Your task to perform on an android device: turn pop-ups off in chrome Image 0: 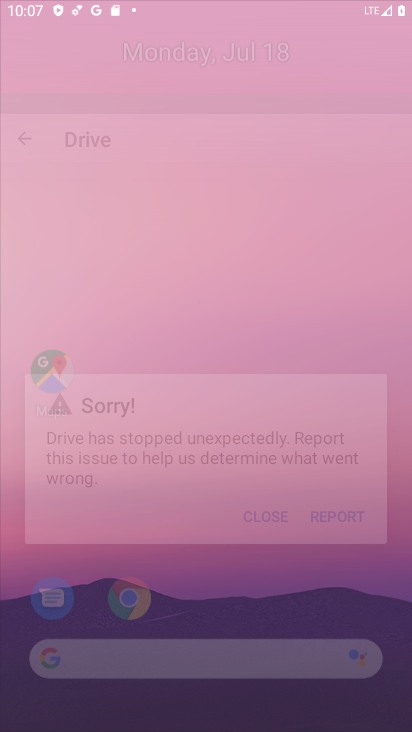
Step 0: drag from (200, 153) to (202, 101)
Your task to perform on an android device: turn pop-ups off in chrome Image 1: 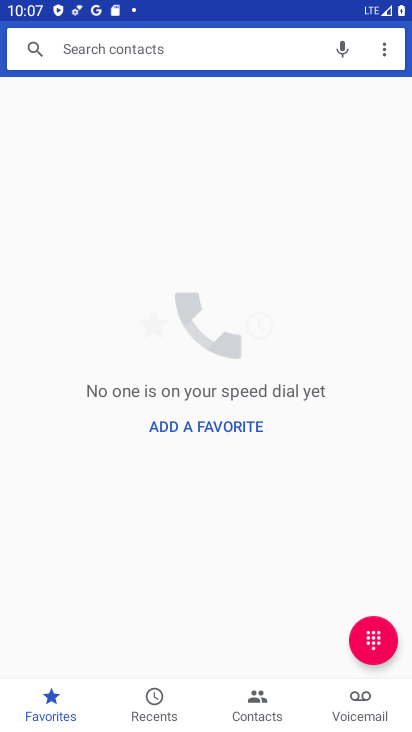
Step 1: press home button
Your task to perform on an android device: turn pop-ups off in chrome Image 2: 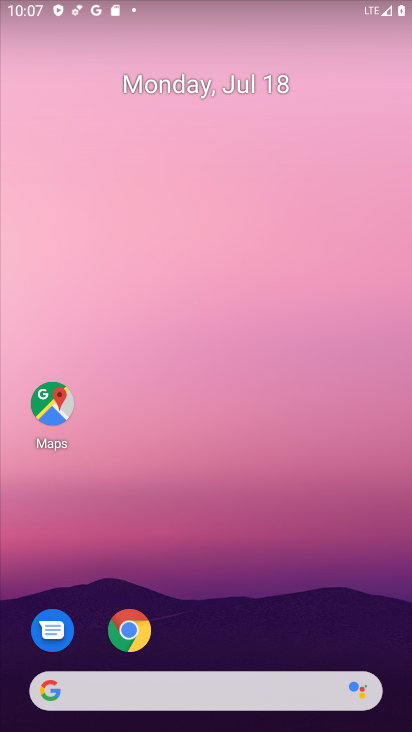
Step 2: drag from (247, 616) to (226, 169)
Your task to perform on an android device: turn pop-ups off in chrome Image 3: 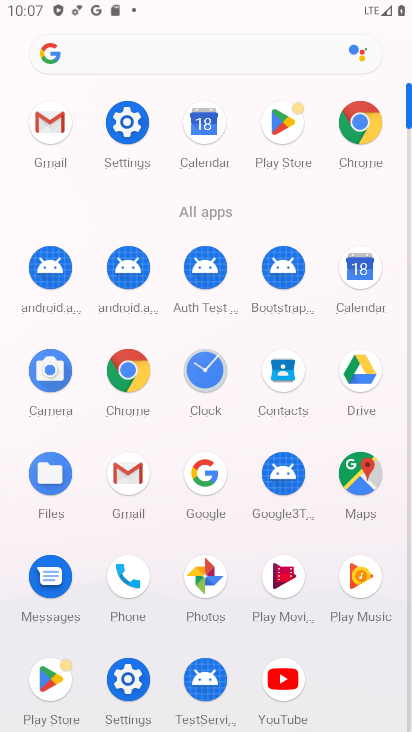
Step 3: click (367, 139)
Your task to perform on an android device: turn pop-ups off in chrome Image 4: 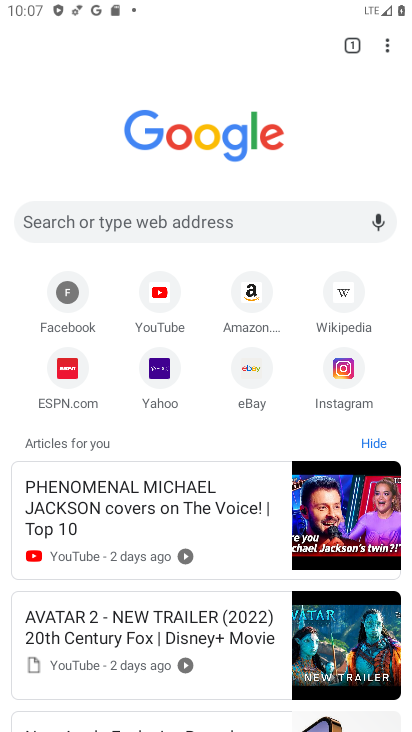
Step 4: click (390, 56)
Your task to perform on an android device: turn pop-ups off in chrome Image 5: 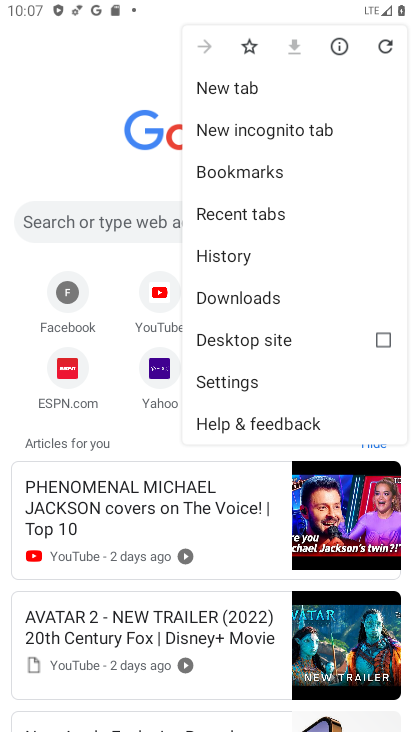
Step 5: click (267, 380)
Your task to perform on an android device: turn pop-ups off in chrome Image 6: 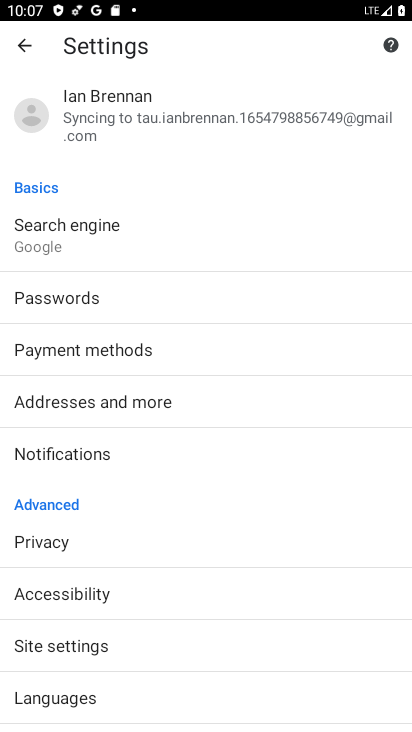
Step 6: click (154, 657)
Your task to perform on an android device: turn pop-ups off in chrome Image 7: 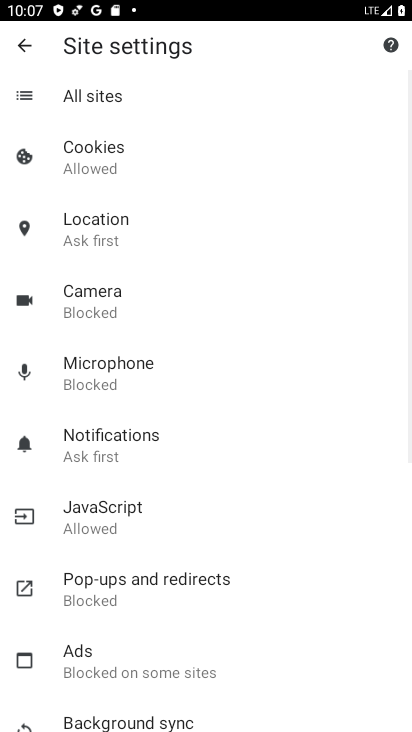
Step 7: click (165, 614)
Your task to perform on an android device: turn pop-ups off in chrome Image 8: 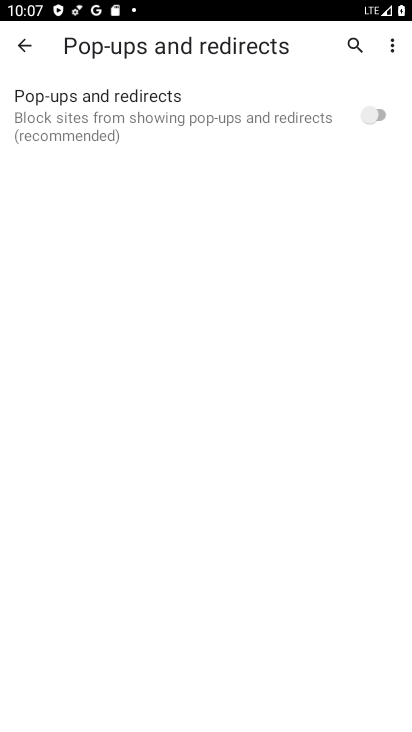
Step 8: task complete